Your task to perform on an android device: What's the weather? Image 0: 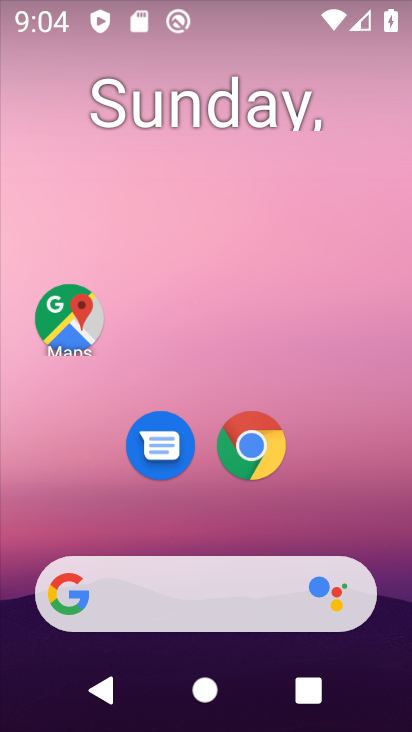
Step 0: click (255, 447)
Your task to perform on an android device: What's the weather? Image 1: 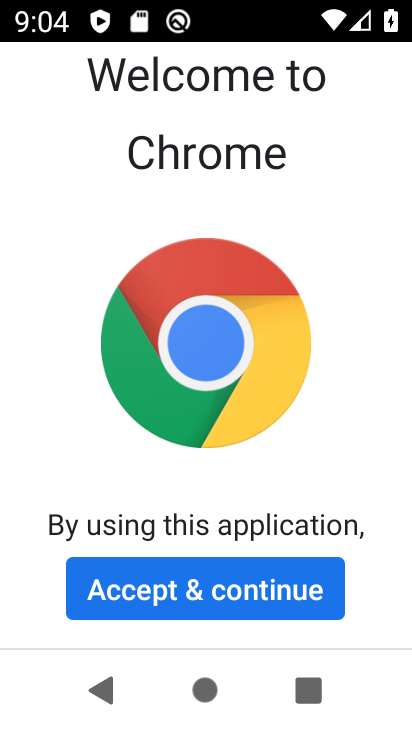
Step 1: click (237, 588)
Your task to perform on an android device: What's the weather? Image 2: 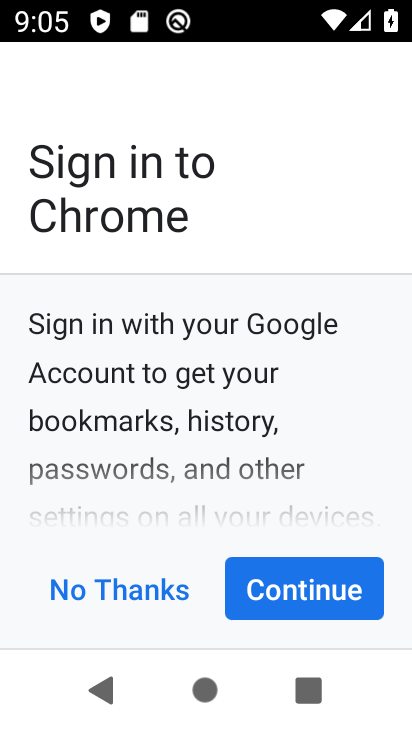
Step 2: click (305, 595)
Your task to perform on an android device: What's the weather? Image 3: 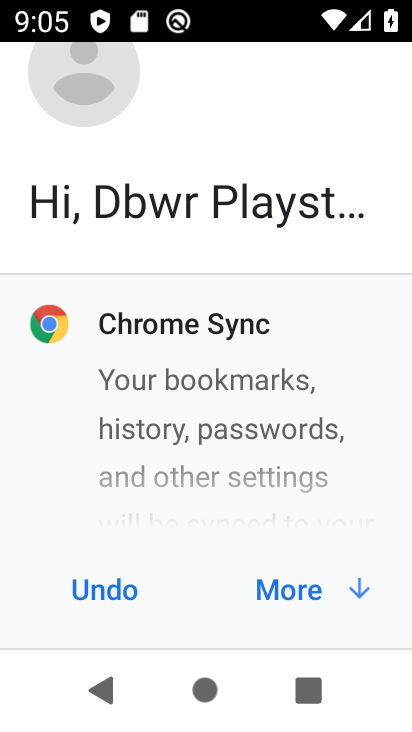
Step 3: click (302, 598)
Your task to perform on an android device: What's the weather? Image 4: 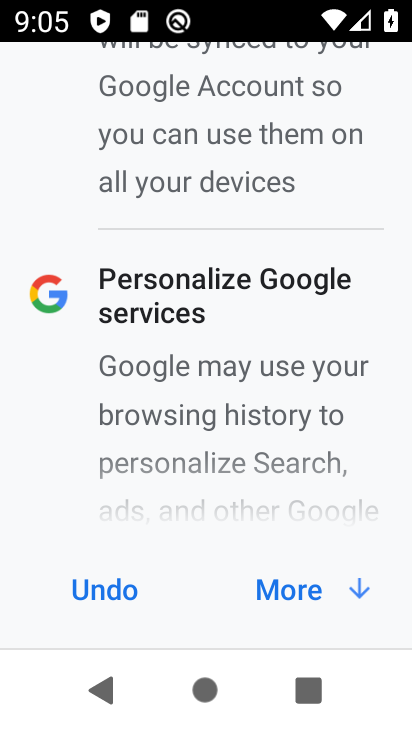
Step 4: click (267, 590)
Your task to perform on an android device: What's the weather? Image 5: 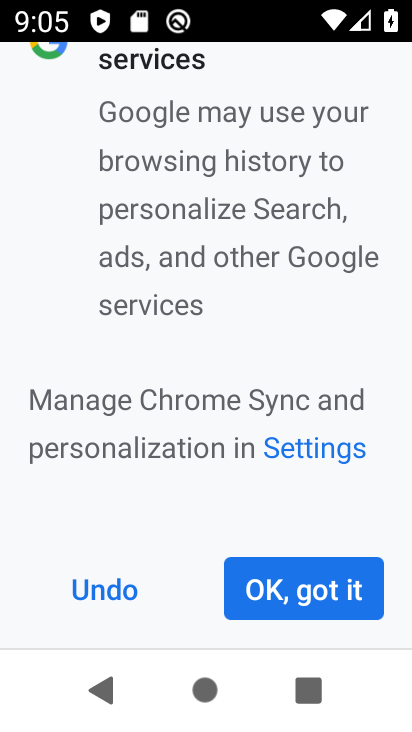
Step 5: click (309, 604)
Your task to perform on an android device: What's the weather? Image 6: 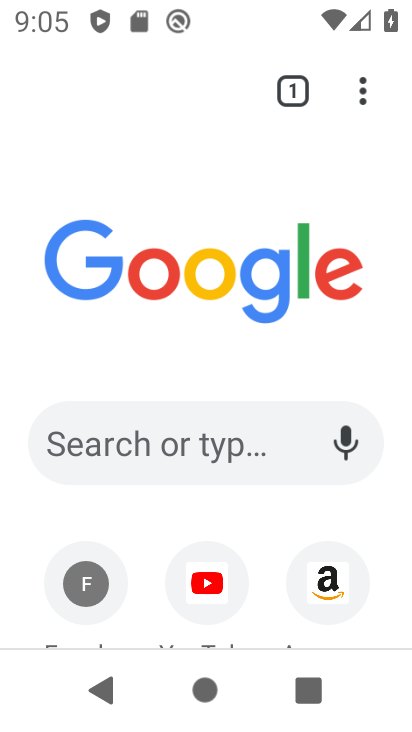
Step 6: click (118, 435)
Your task to perform on an android device: What's the weather? Image 7: 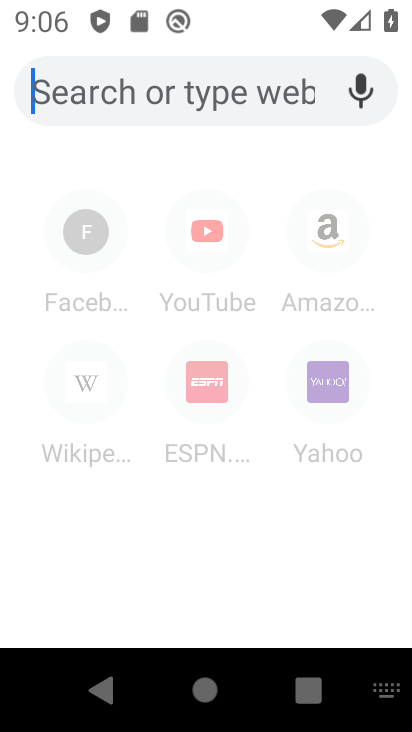
Step 7: type "weather"
Your task to perform on an android device: What's the weather? Image 8: 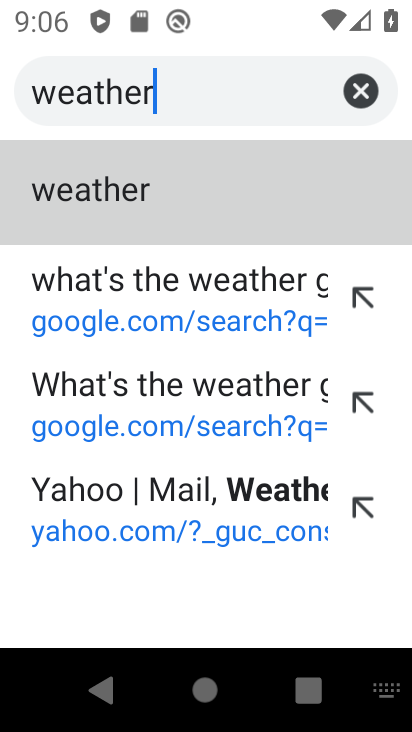
Step 8: click (202, 214)
Your task to perform on an android device: What's the weather? Image 9: 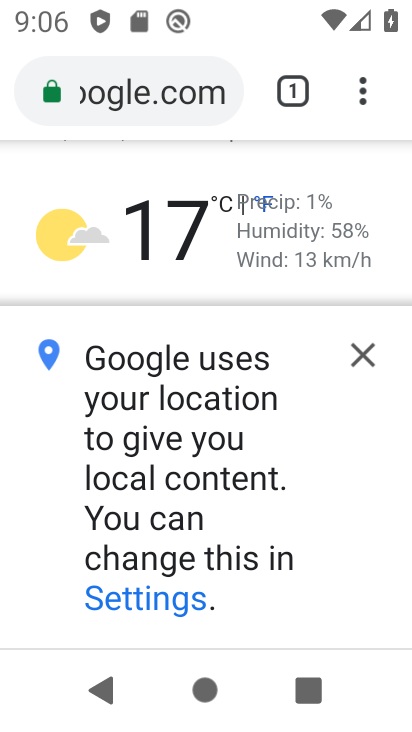
Step 9: task complete